Your task to perform on an android device: set the timer Image 0: 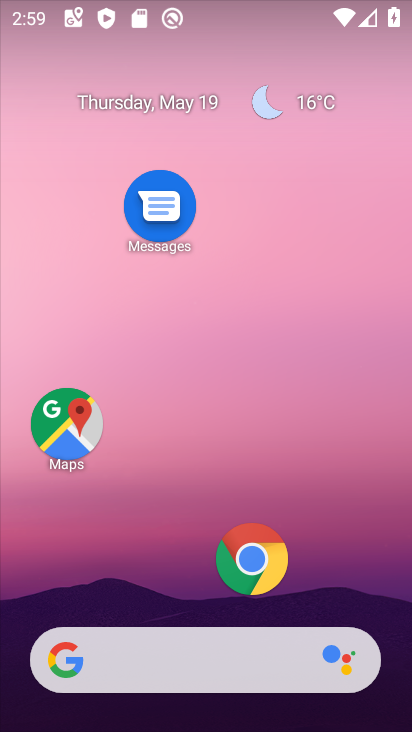
Step 0: drag from (178, 605) to (189, 234)
Your task to perform on an android device: set the timer Image 1: 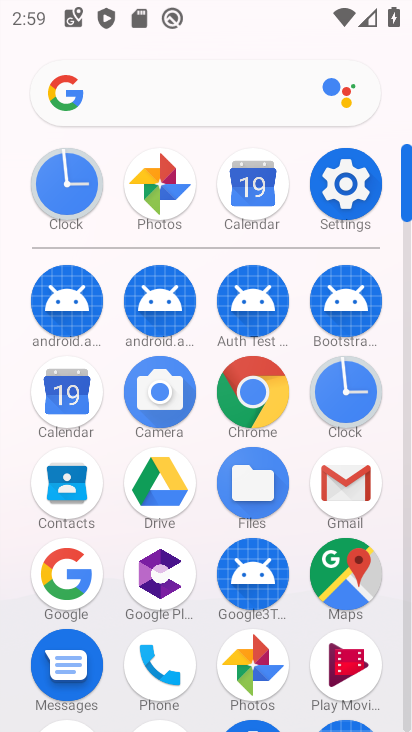
Step 1: click (358, 408)
Your task to perform on an android device: set the timer Image 2: 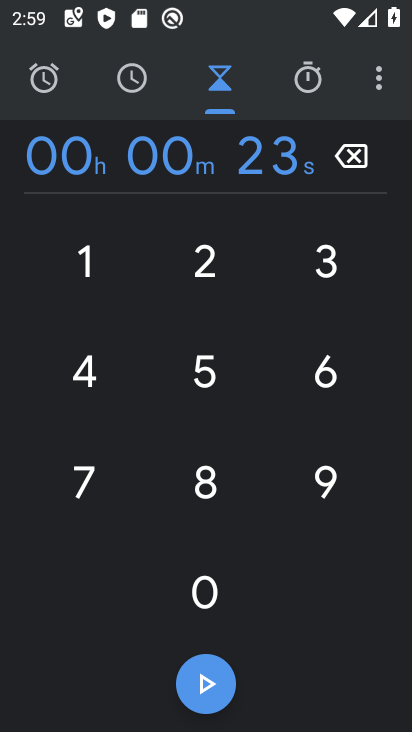
Step 2: click (213, 668)
Your task to perform on an android device: set the timer Image 3: 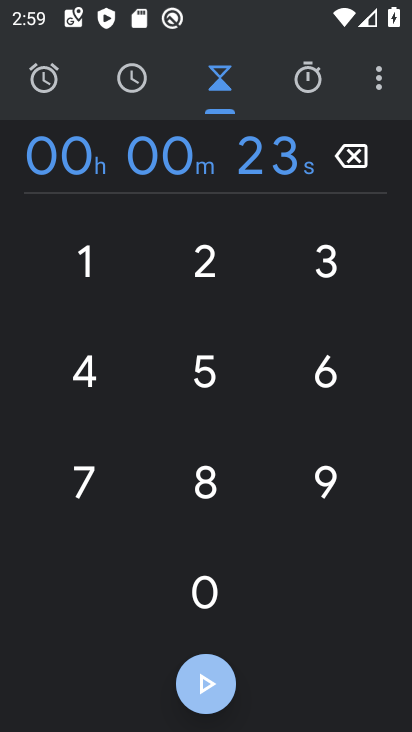
Step 3: task complete